Your task to perform on an android device: install app "Walmart Shopping & Grocery" Image 0: 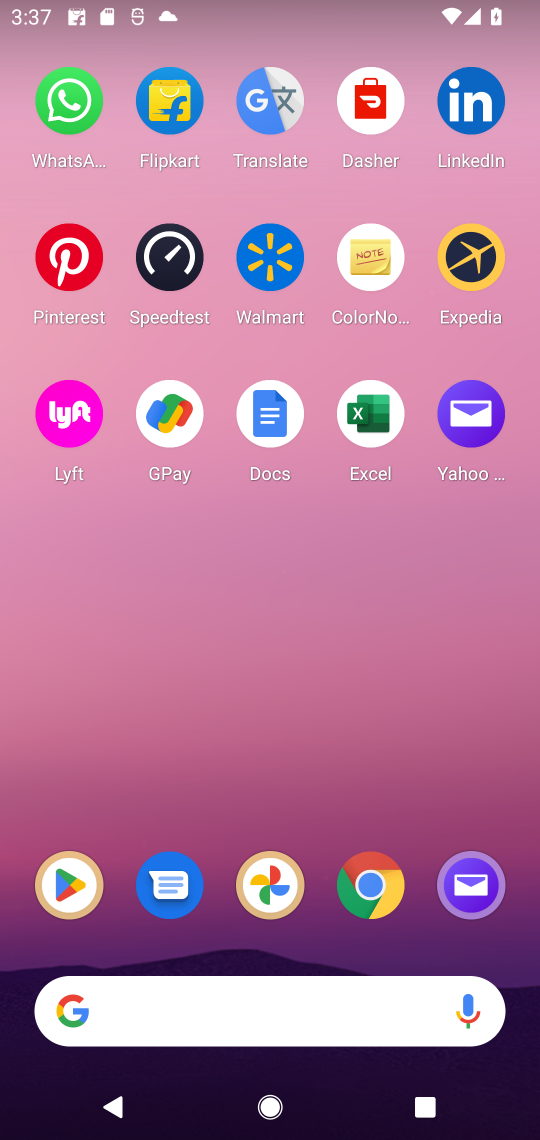
Step 0: click (62, 889)
Your task to perform on an android device: install app "Walmart Shopping & Grocery" Image 1: 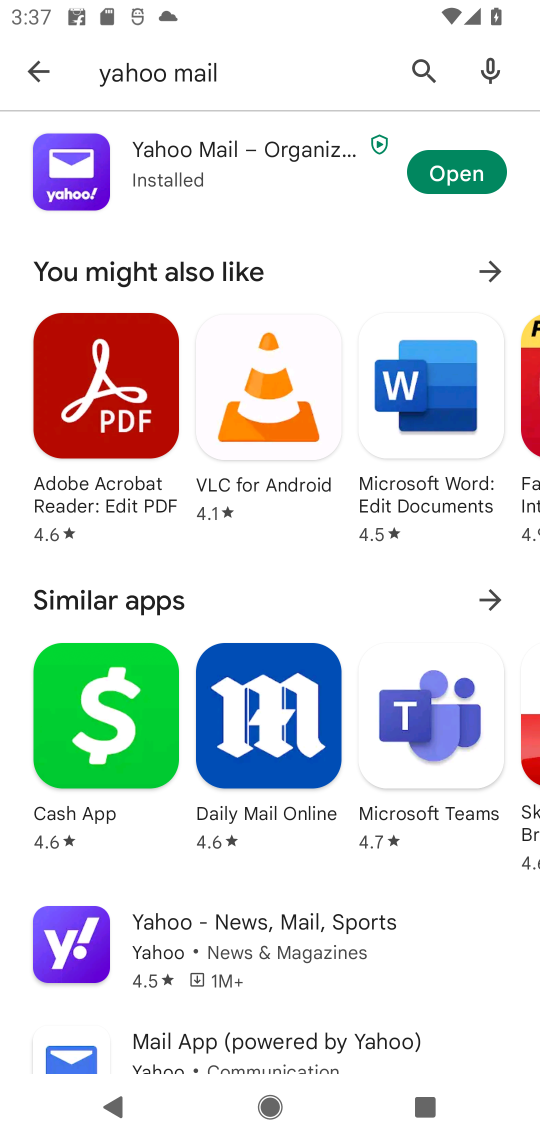
Step 1: click (411, 61)
Your task to perform on an android device: install app "Walmart Shopping & Grocery" Image 2: 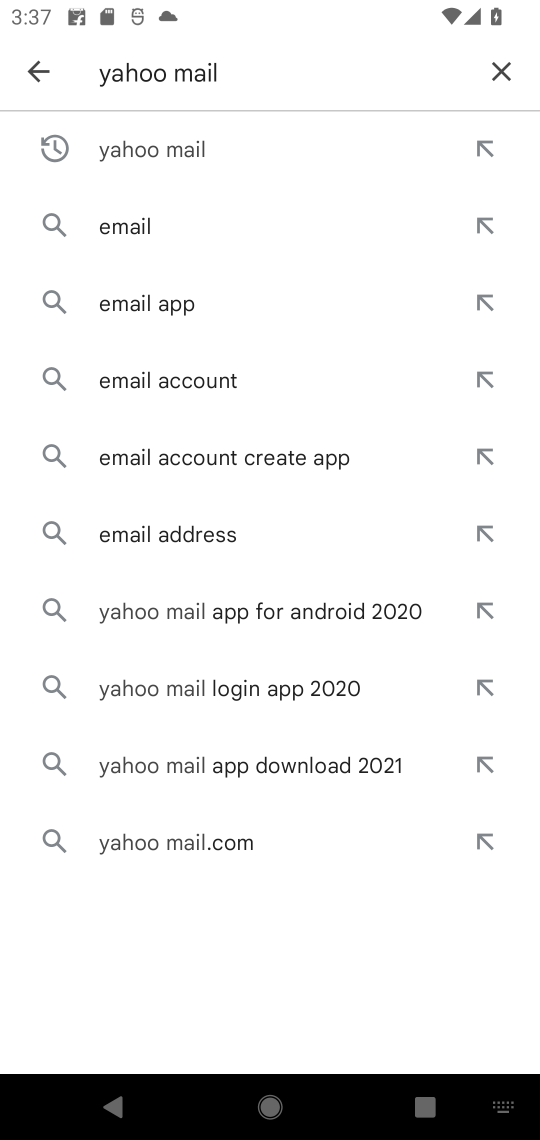
Step 2: click (509, 69)
Your task to perform on an android device: install app "Walmart Shopping & Grocery" Image 3: 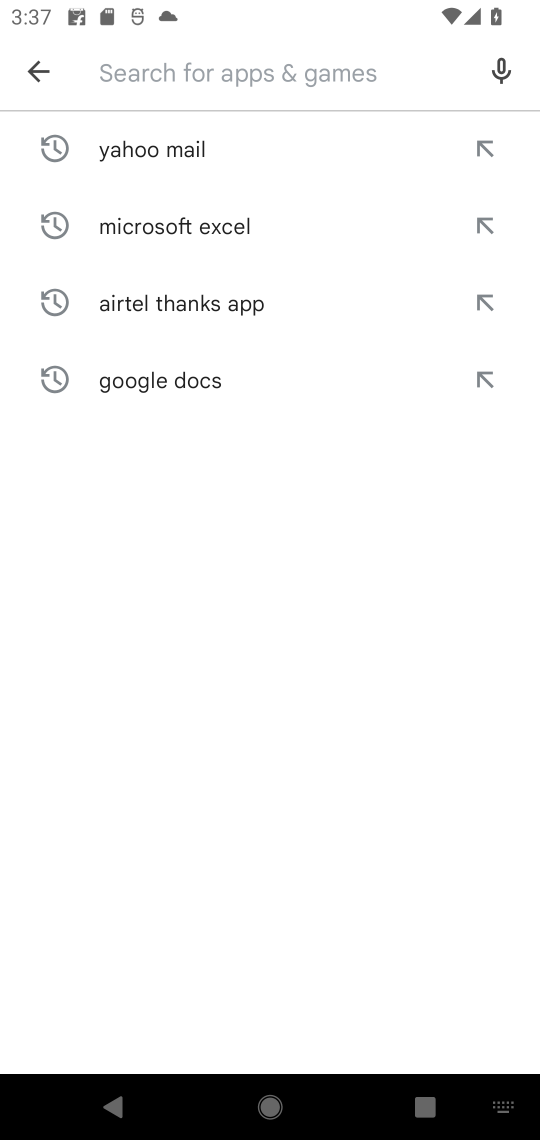
Step 3: type "Walmart Shopping & Grocery"
Your task to perform on an android device: install app "Walmart Shopping & Grocery" Image 4: 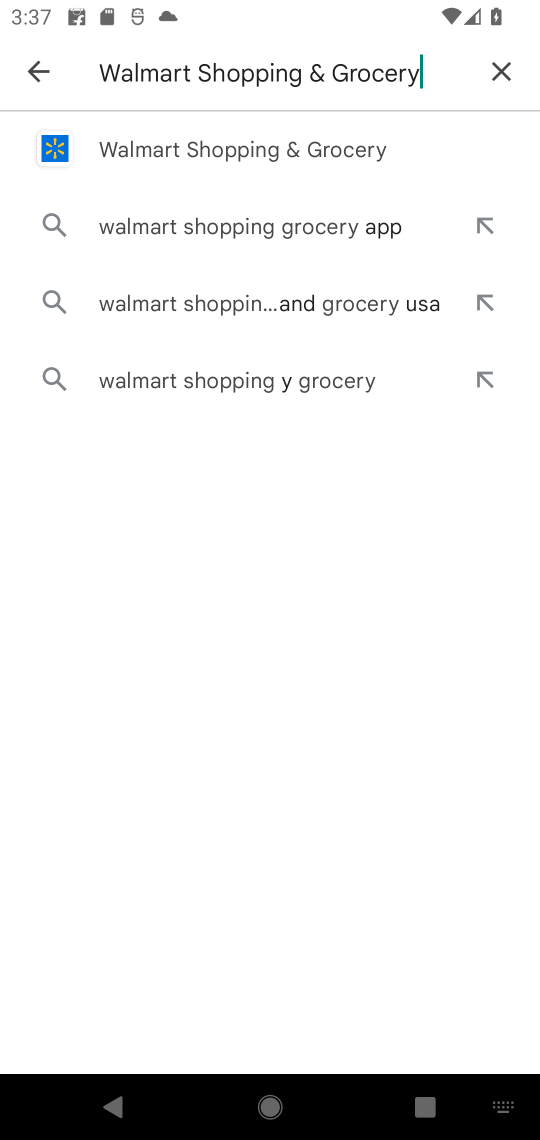
Step 4: click (249, 148)
Your task to perform on an android device: install app "Walmart Shopping & Grocery" Image 5: 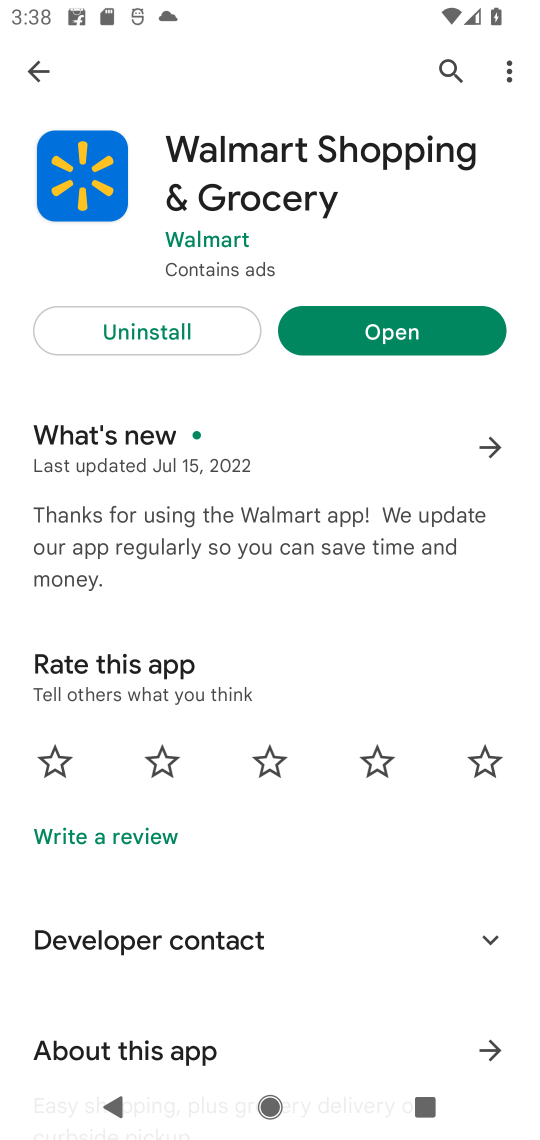
Step 5: task complete